Your task to perform on an android device: Show me recent news Image 0: 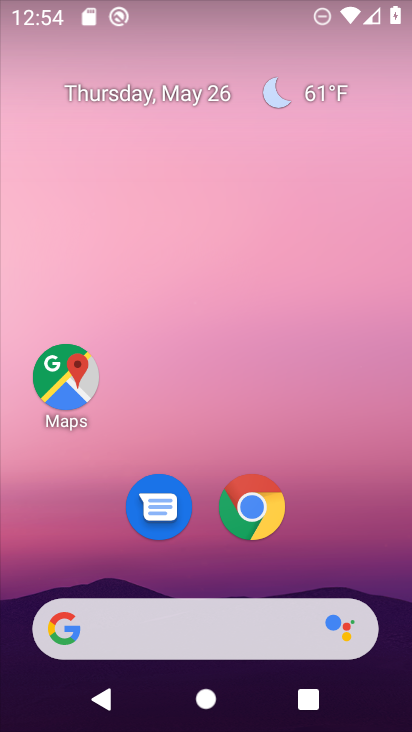
Step 0: click (280, 619)
Your task to perform on an android device: Show me recent news Image 1: 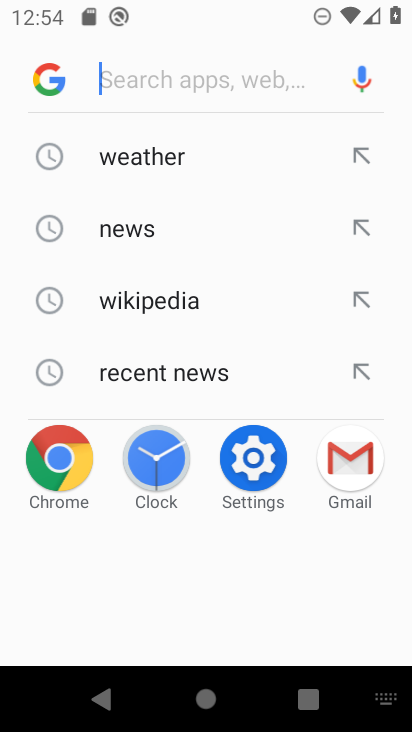
Step 1: click (180, 367)
Your task to perform on an android device: Show me recent news Image 2: 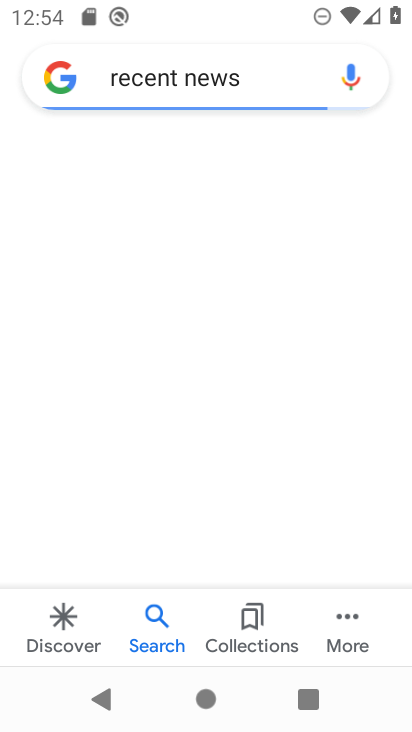
Step 2: task complete